Your task to perform on an android device: Go to Google Image 0: 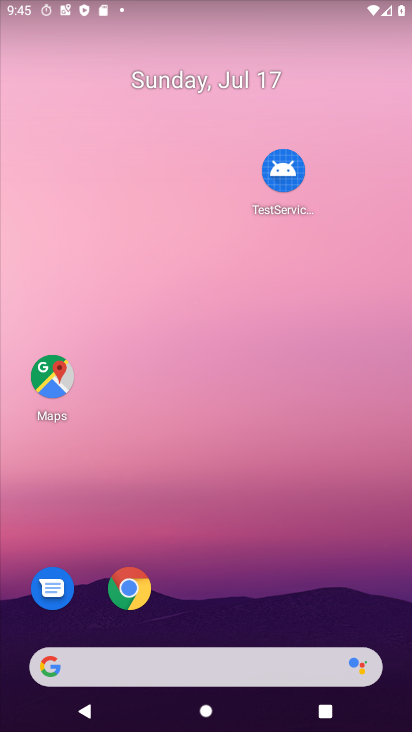
Step 0: drag from (232, 589) to (236, 156)
Your task to perform on an android device: Go to Google Image 1: 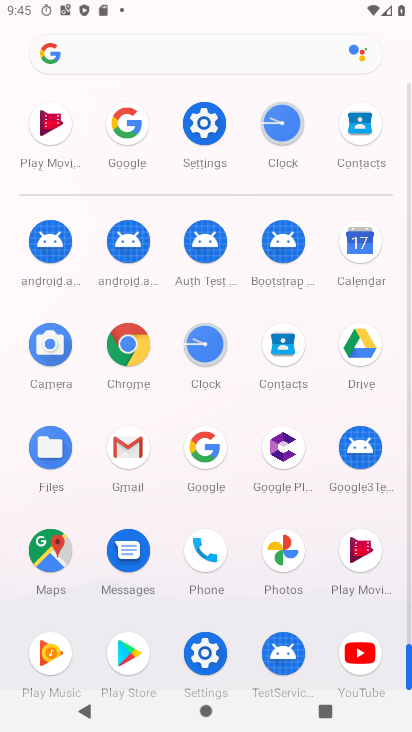
Step 1: click (211, 451)
Your task to perform on an android device: Go to Google Image 2: 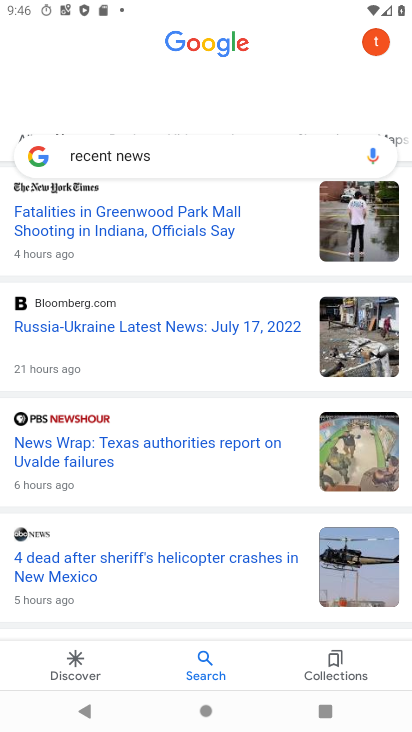
Step 2: task complete